Your task to perform on an android device: turn on location history Image 0: 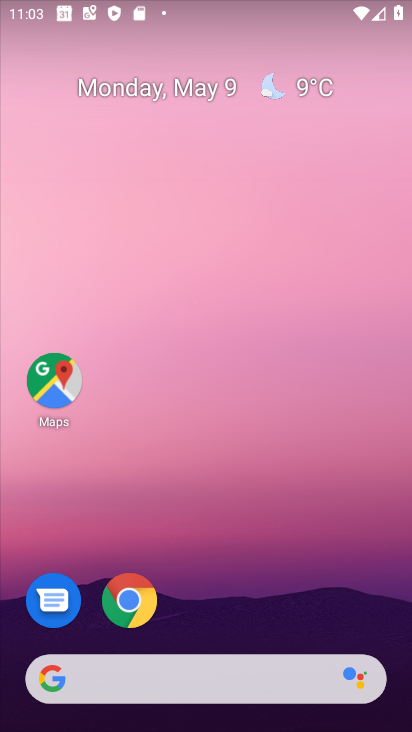
Step 0: click (364, 525)
Your task to perform on an android device: turn on location history Image 1: 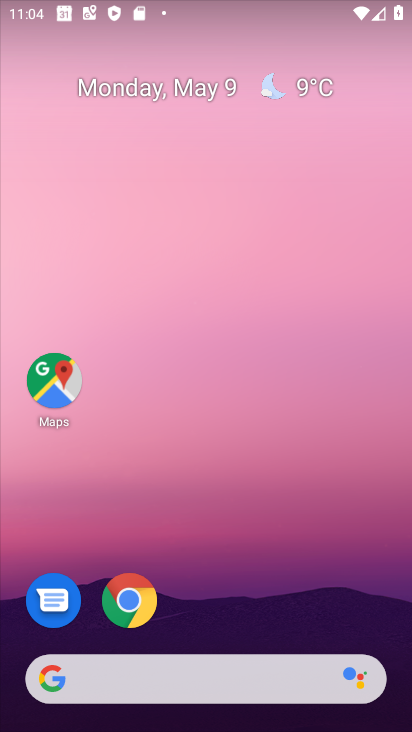
Step 1: drag from (303, 539) to (274, 165)
Your task to perform on an android device: turn on location history Image 2: 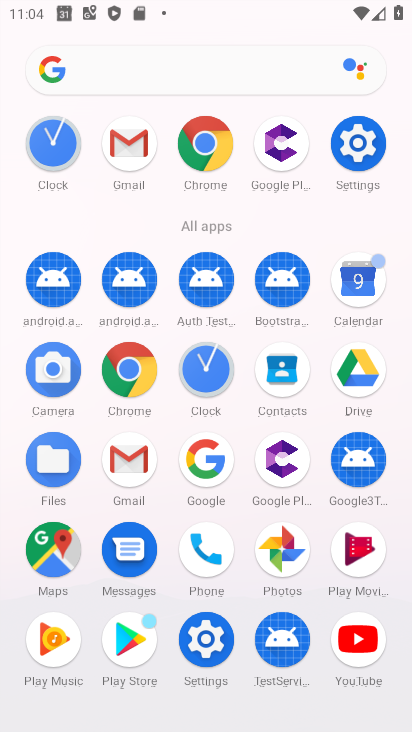
Step 2: click (210, 639)
Your task to perform on an android device: turn on location history Image 3: 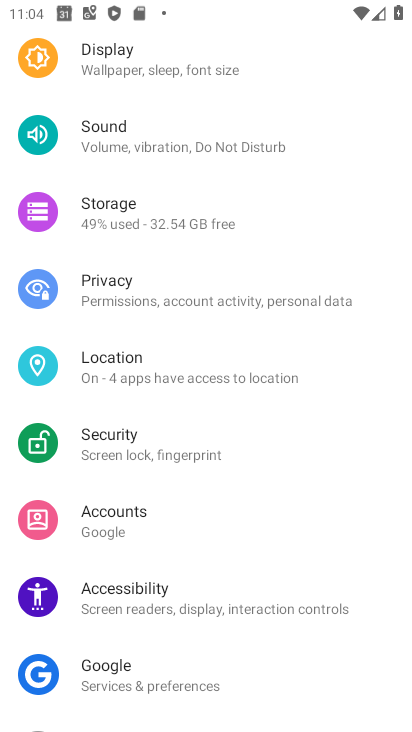
Step 3: click (150, 362)
Your task to perform on an android device: turn on location history Image 4: 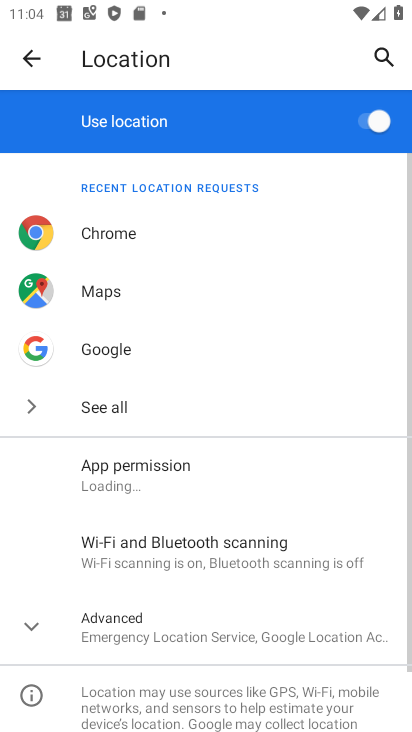
Step 4: click (244, 637)
Your task to perform on an android device: turn on location history Image 5: 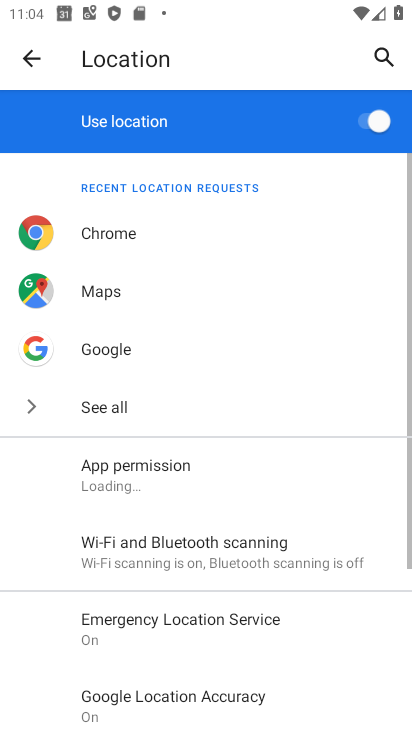
Step 5: drag from (244, 637) to (243, 428)
Your task to perform on an android device: turn on location history Image 6: 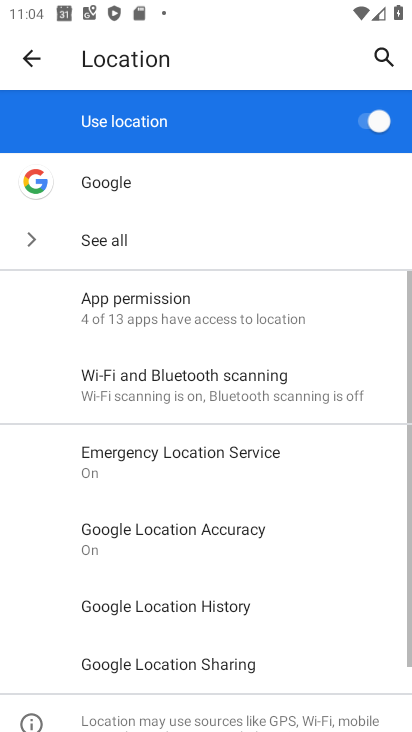
Step 6: click (187, 604)
Your task to perform on an android device: turn on location history Image 7: 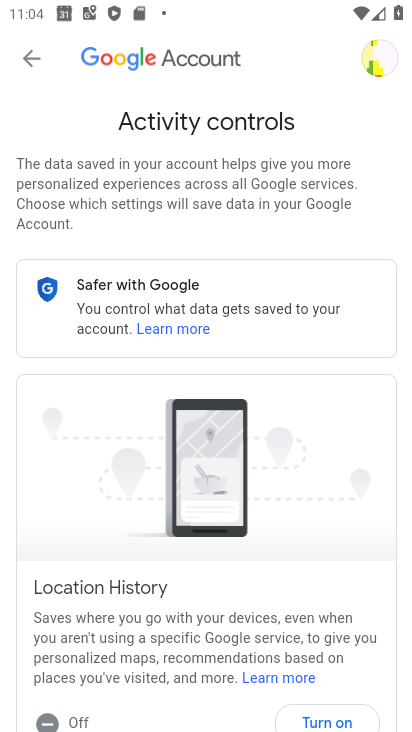
Step 7: drag from (203, 655) to (273, 428)
Your task to perform on an android device: turn on location history Image 8: 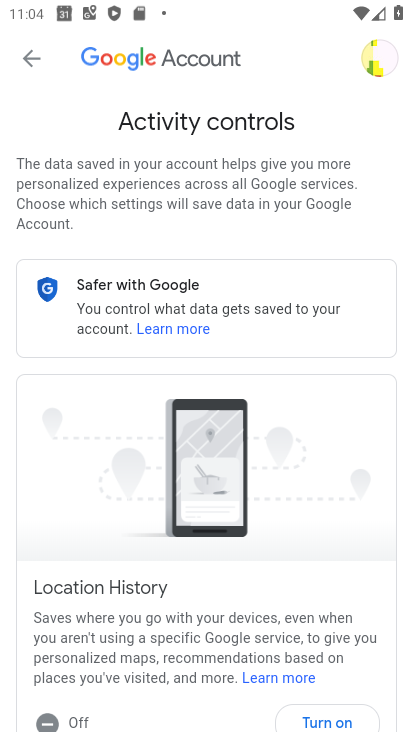
Step 8: click (340, 723)
Your task to perform on an android device: turn on location history Image 9: 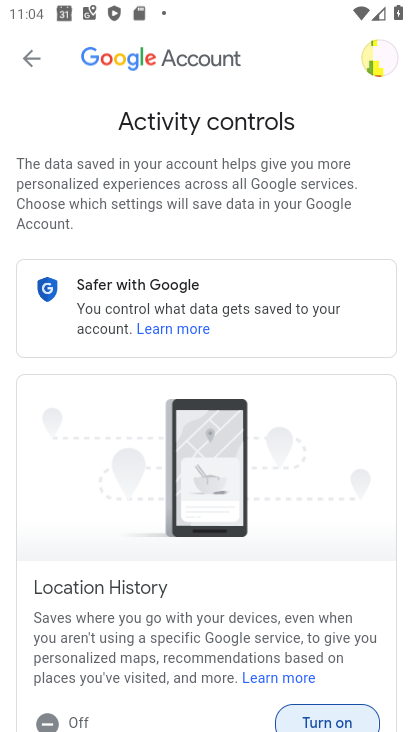
Step 9: drag from (312, 650) to (309, 354)
Your task to perform on an android device: turn on location history Image 10: 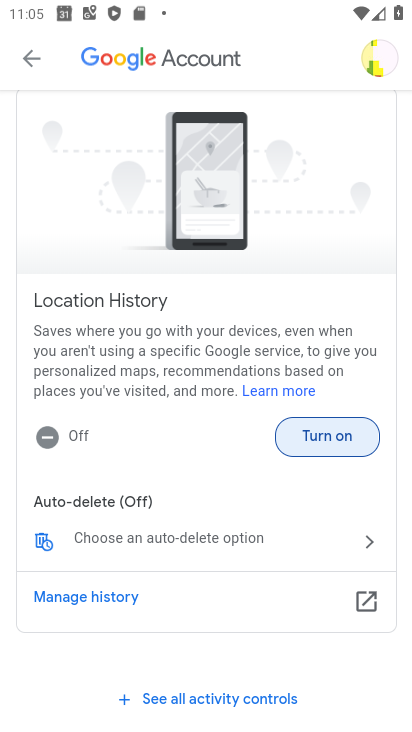
Step 10: click (341, 435)
Your task to perform on an android device: turn on location history Image 11: 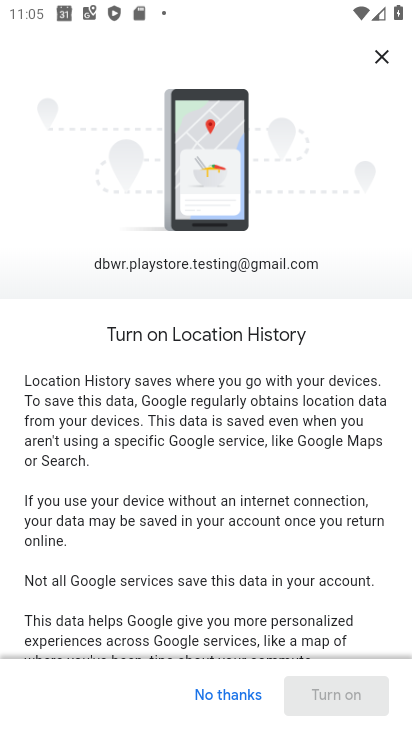
Step 11: drag from (282, 576) to (306, 303)
Your task to perform on an android device: turn on location history Image 12: 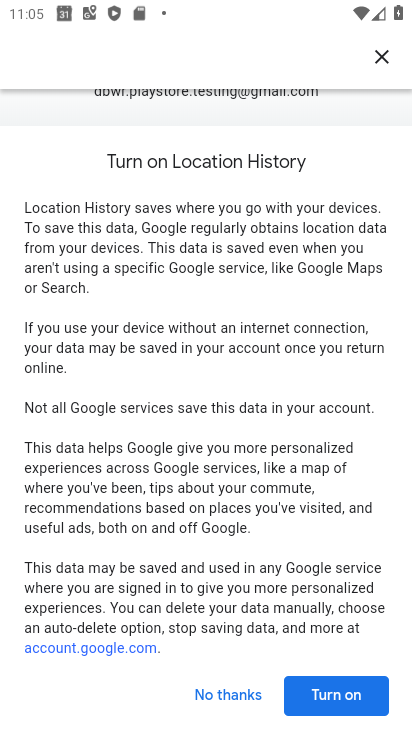
Step 12: drag from (296, 568) to (299, 350)
Your task to perform on an android device: turn on location history Image 13: 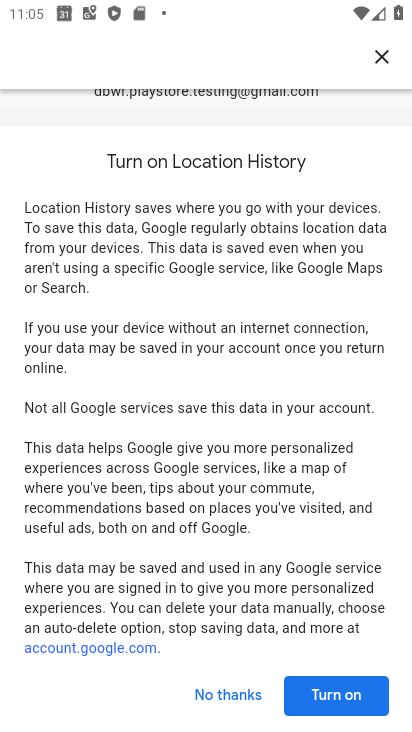
Step 13: click (345, 688)
Your task to perform on an android device: turn on location history Image 14: 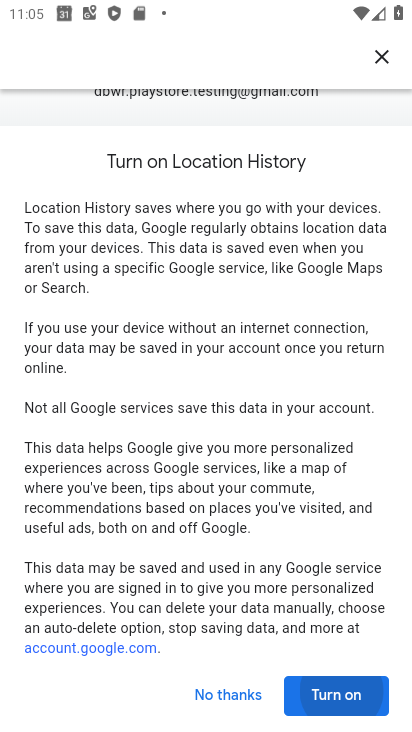
Step 14: click (346, 687)
Your task to perform on an android device: turn on location history Image 15: 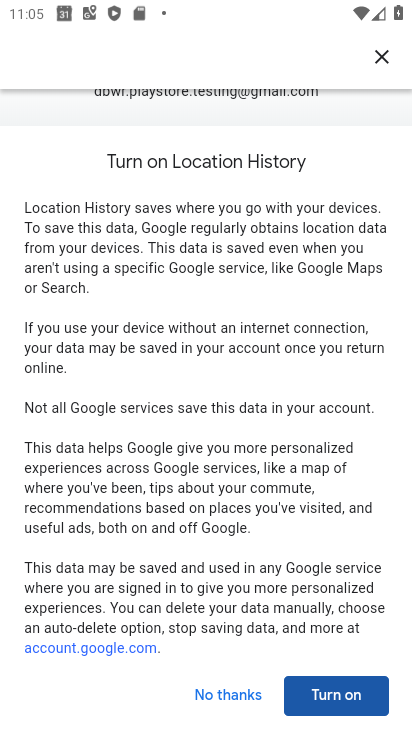
Step 15: click (350, 687)
Your task to perform on an android device: turn on location history Image 16: 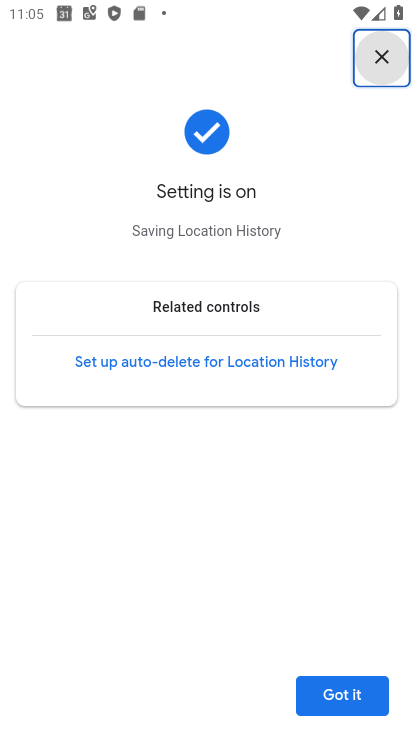
Step 16: task complete